Your task to perform on an android device: snooze an email in the gmail app Image 0: 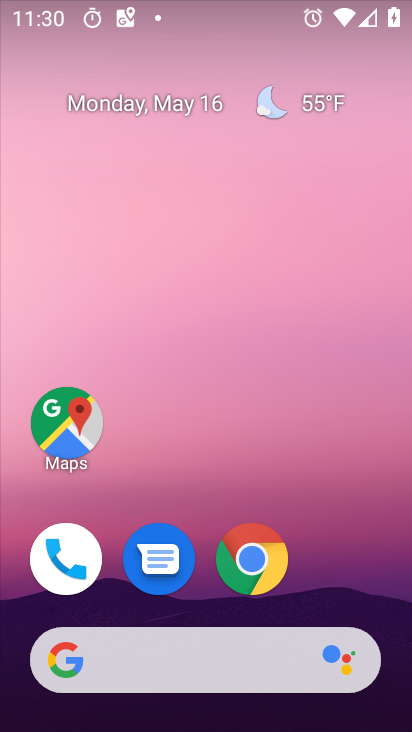
Step 0: drag from (336, 558) to (341, 102)
Your task to perform on an android device: snooze an email in the gmail app Image 1: 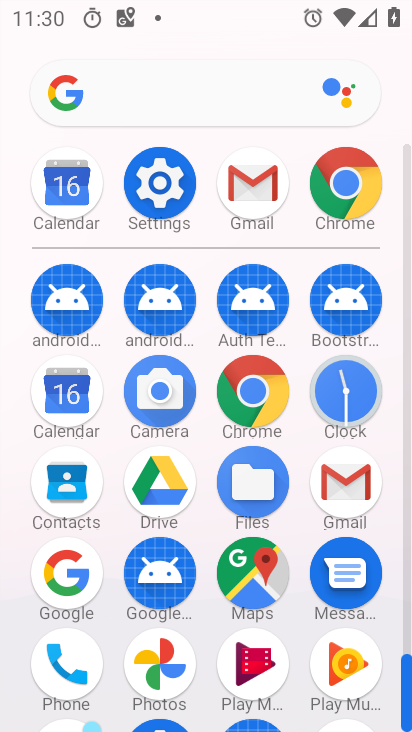
Step 1: click (363, 473)
Your task to perform on an android device: snooze an email in the gmail app Image 2: 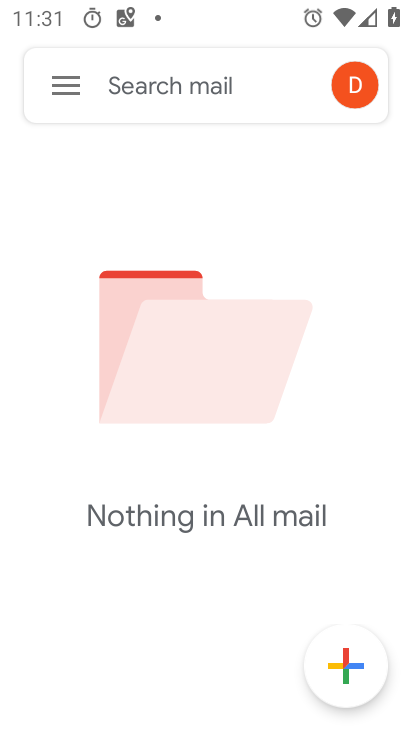
Step 2: task complete